Your task to perform on an android device: empty trash in google photos Image 0: 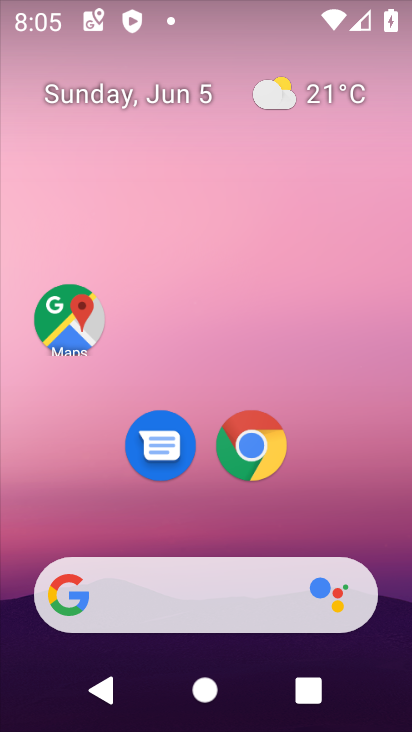
Step 0: drag from (334, 530) to (301, 194)
Your task to perform on an android device: empty trash in google photos Image 1: 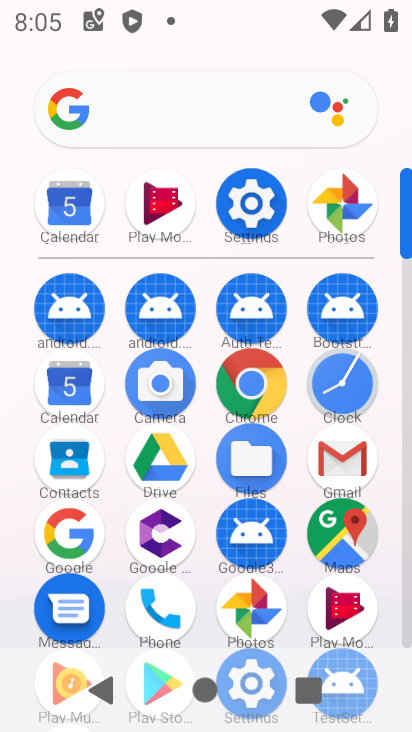
Step 1: click (339, 190)
Your task to perform on an android device: empty trash in google photos Image 2: 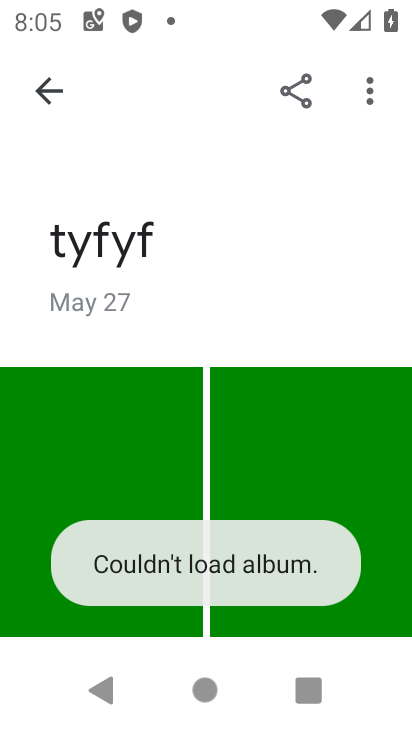
Step 2: click (47, 88)
Your task to perform on an android device: empty trash in google photos Image 3: 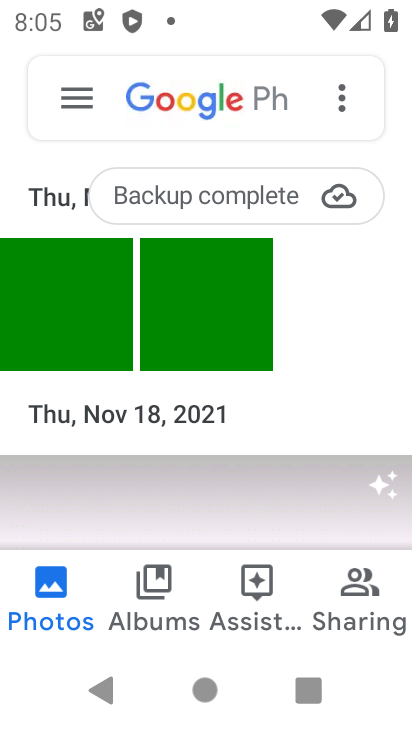
Step 3: click (82, 97)
Your task to perform on an android device: empty trash in google photos Image 4: 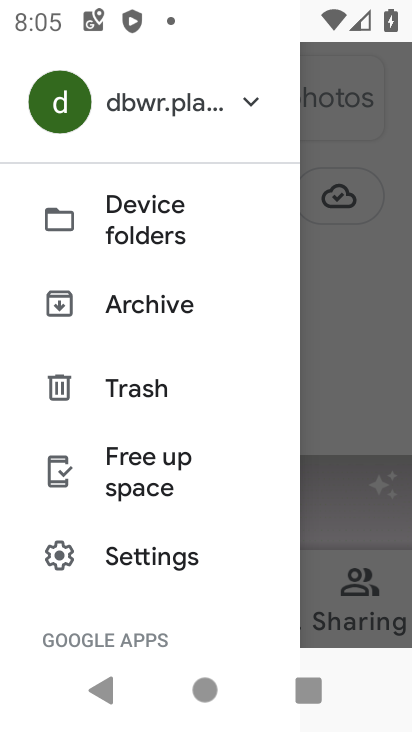
Step 4: click (119, 384)
Your task to perform on an android device: empty trash in google photos Image 5: 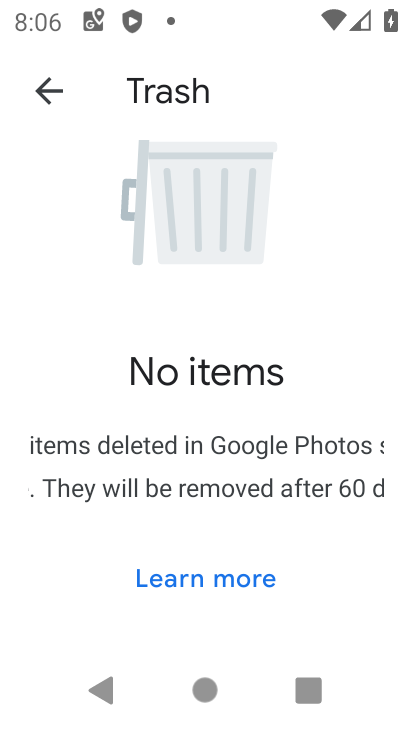
Step 5: task complete